Your task to perform on an android device: What is the recent news? Image 0: 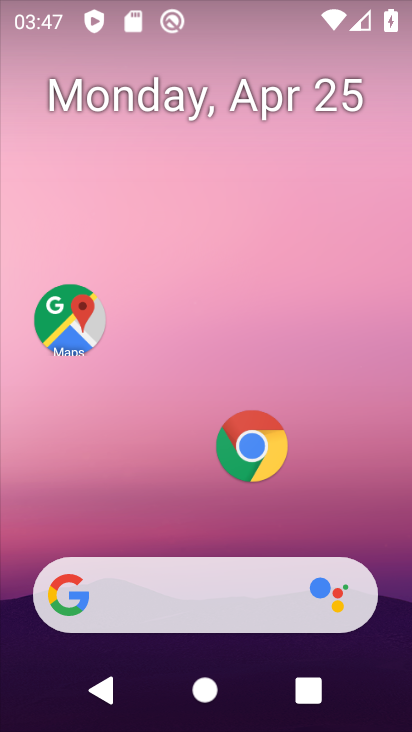
Step 0: click (199, 617)
Your task to perform on an android device: What is the recent news? Image 1: 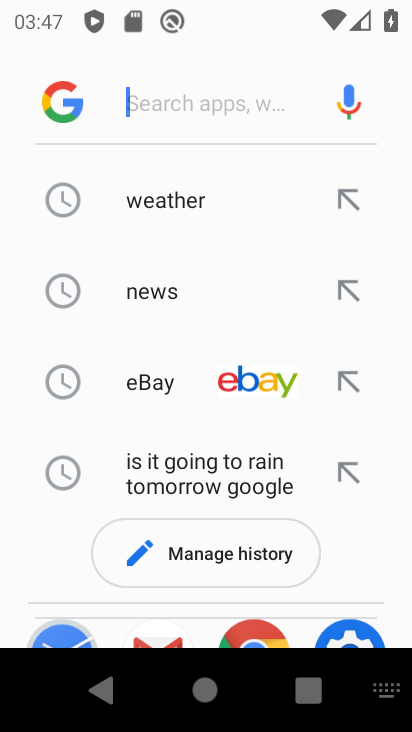
Step 1: click (71, 104)
Your task to perform on an android device: What is the recent news? Image 2: 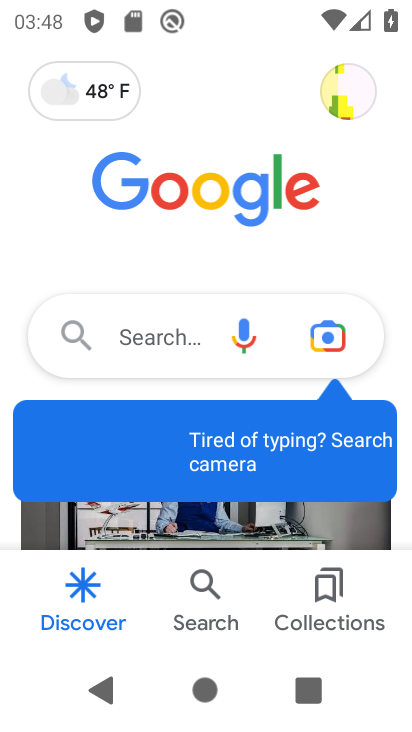
Step 2: task complete